Your task to perform on an android device: Look up the best rated bike on Walmart Image 0: 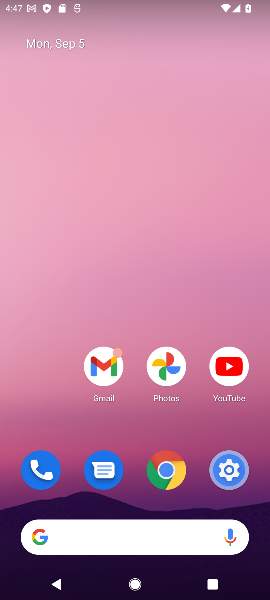
Step 0: click (197, 537)
Your task to perform on an android device: Look up the best rated bike on Walmart Image 1: 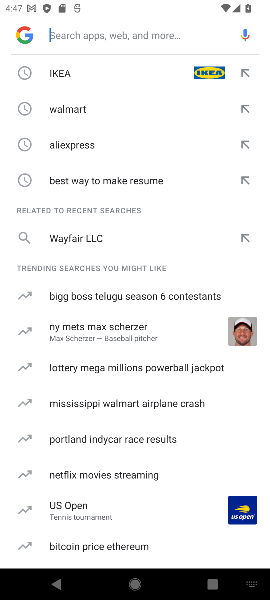
Step 1: type "walmart"
Your task to perform on an android device: Look up the best rated bike on Walmart Image 2: 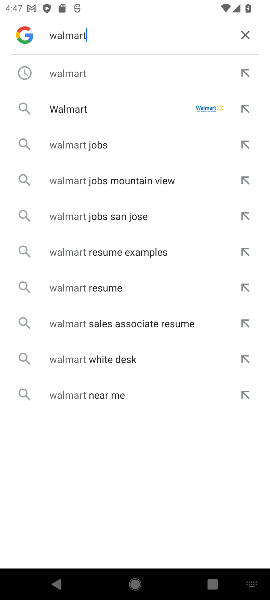
Step 2: click (206, 112)
Your task to perform on an android device: Look up the best rated bike on Walmart Image 3: 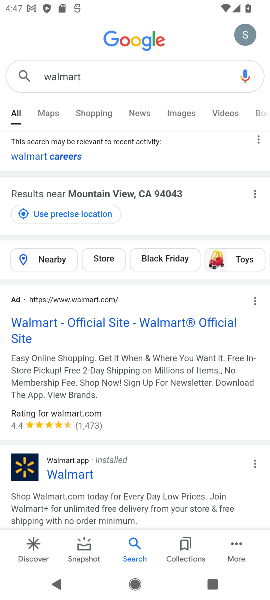
Step 3: click (114, 321)
Your task to perform on an android device: Look up the best rated bike on Walmart Image 4: 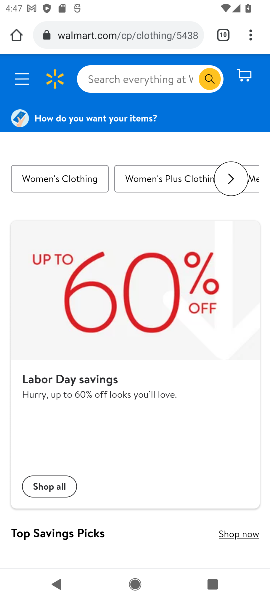
Step 4: click (160, 79)
Your task to perform on an android device: Look up the best rated bike on Walmart Image 5: 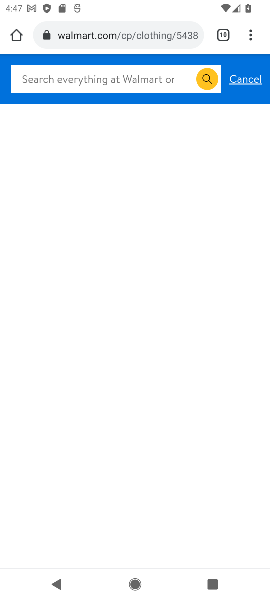
Step 5: type "bike"
Your task to perform on an android device: Look up the best rated bike on Walmart Image 6: 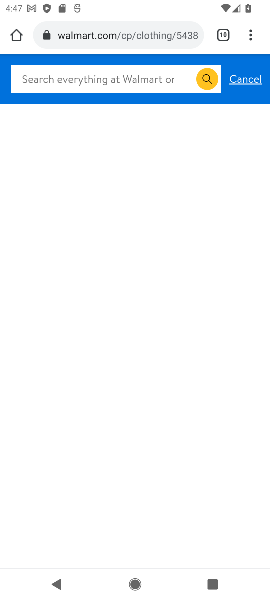
Step 6: click (101, 75)
Your task to perform on an android device: Look up the best rated bike on Walmart Image 7: 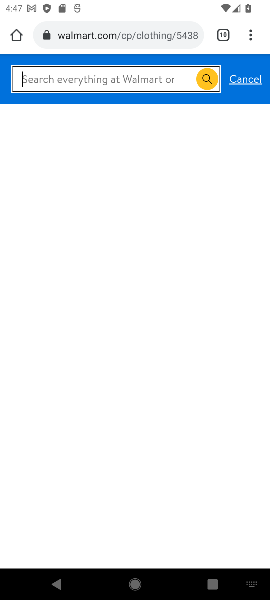
Step 7: type "bike"
Your task to perform on an android device: Look up the best rated bike on Walmart Image 8: 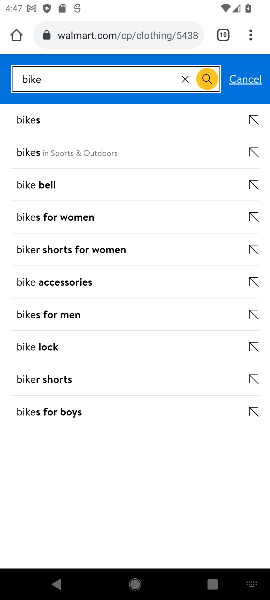
Step 8: press enter
Your task to perform on an android device: Look up the best rated bike on Walmart Image 9: 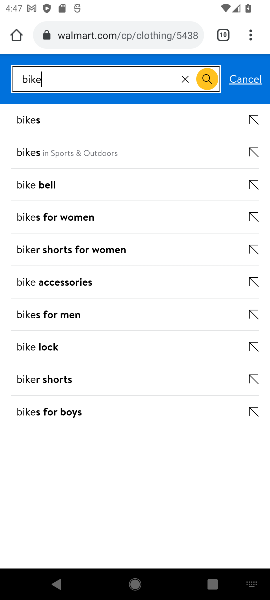
Step 9: press enter
Your task to perform on an android device: Look up the best rated bike on Walmart Image 10: 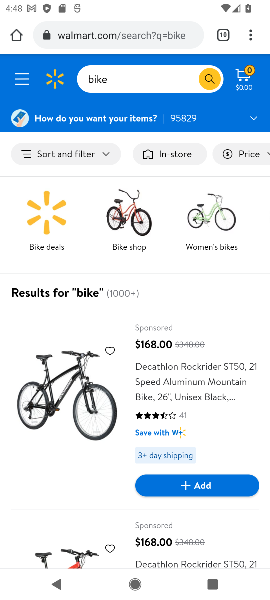
Step 10: click (96, 153)
Your task to perform on an android device: Look up the best rated bike on Walmart Image 11: 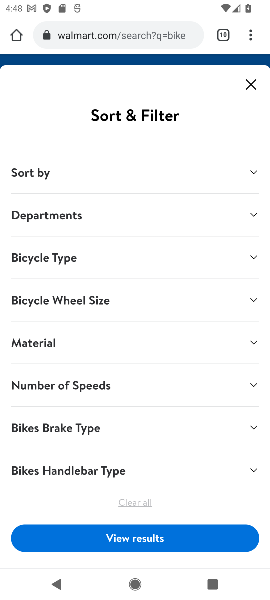
Step 11: drag from (159, 429) to (187, 138)
Your task to perform on an android device: Look up the best rated bike on Walmart Image 12: 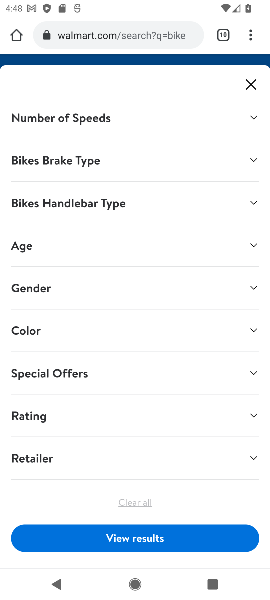
Step 12: click (77, 409)
Your task to perform on an android device: Look up the best rated bike on Walmart Image 13: 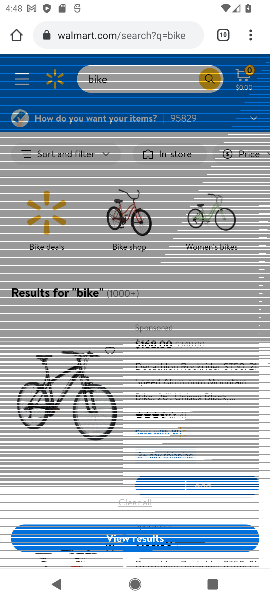
Step 13: click (147, 102)
Your task to perform on an android device: Look up the best rated bike on Walmart Image 14: 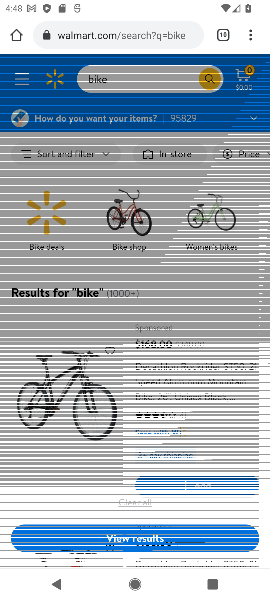
Step 14: click (204, 3)
Your task to perform on an android device: Look up the best rated bike on Walmart Image 15: 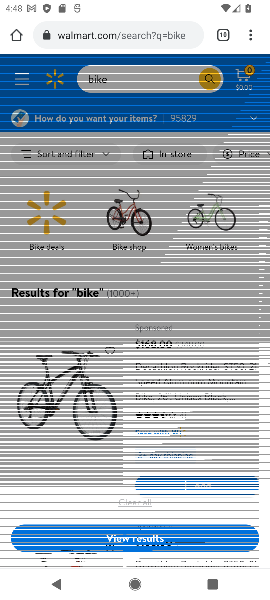
Step 15: click (251, 238)
Your task to perform on an android device: Look up the best rated bike on Walmart Image 16: 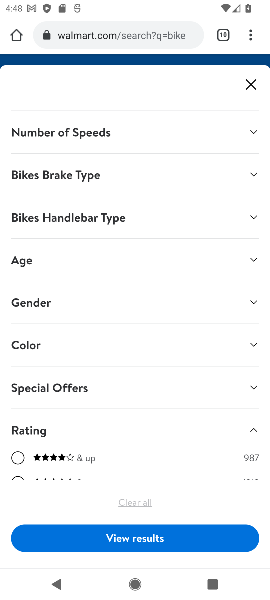
Step 16: click (17, 454)
Your task to perform on an android device: Look up the best rated bike on Walmart Image 17: 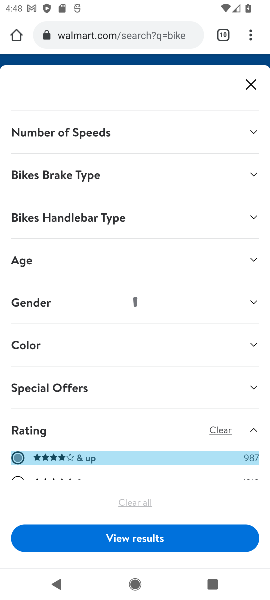
Step 17: click (19, 454)
Your task to perform on an android device: Look up the best rated bike on Walmart Image 18: 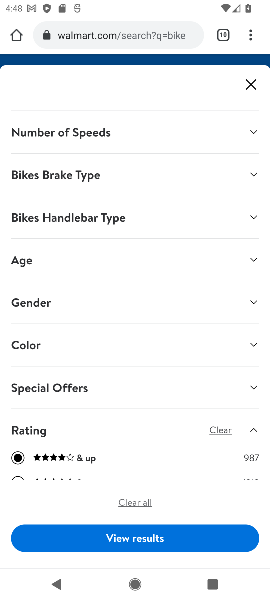
Step 18: click (158, 534)
Your task to perform on an android device: Look up the best rated bike on Walmart Image 19: 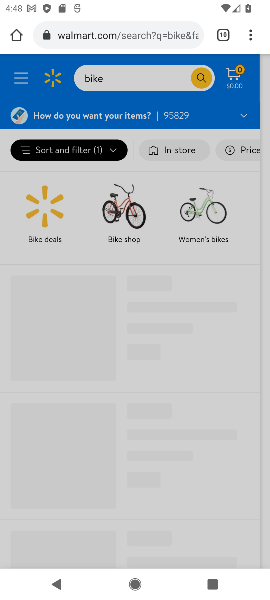
Step 19: click (246, 241)
Your task to perform on an android device: Look up the best rated bike on Walmart Image 20: 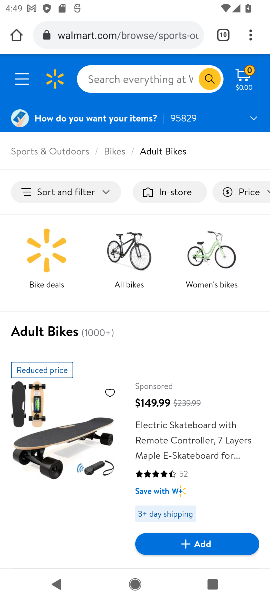
Step 20: drag from (222, 351) to (222, 200)
Your task to perform on an android device: Look up the best rated bike on Walmart Image 21: 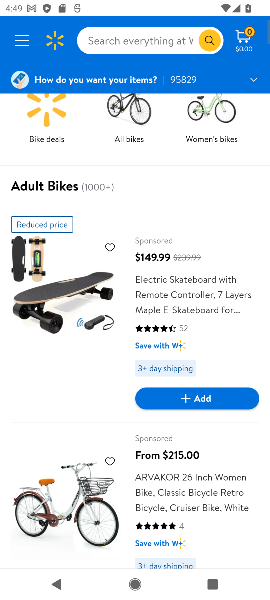
Step 21: drag from (220, 454) to (236, 260)
Your task to perform on an android device: Look up the best rated bike on Walmart Image 22: 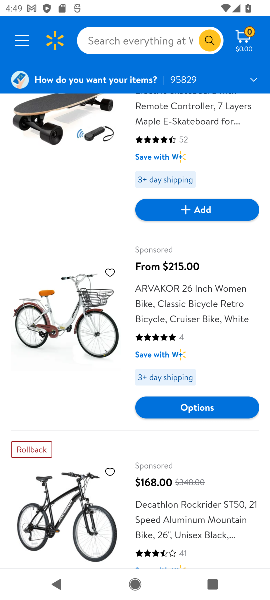
Step 22: drag from (216, 396) to (216, 307)
Your task to perform on an android device: Look up the best rated bike on Walmart Image 23: 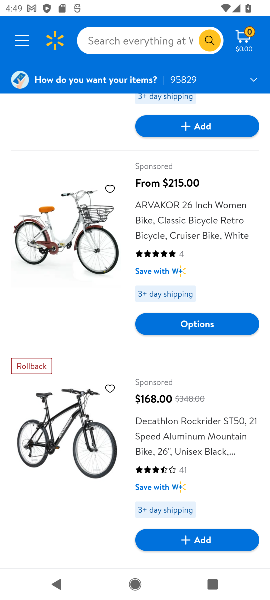
Step 23: click (212, 480)
Your task to perform on an android device: Look up the best rated bike on Walmart Image 24: 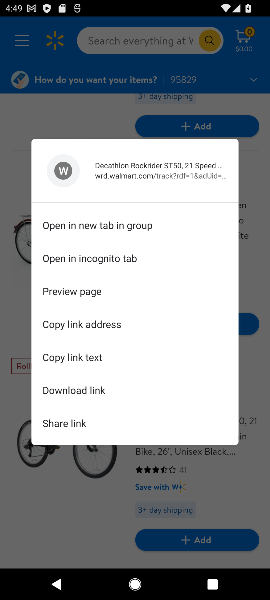
Step 24: click (244, 84)
Your task to perform on an android device: Look up the best rated bike on Walmart Image 25: 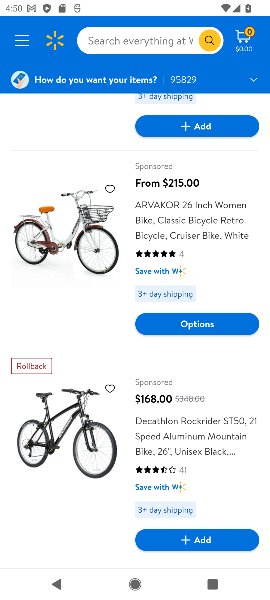
Step 25: task complete